Your task to perform on an android device: toggle priority inbox in the gmail app Image 0: 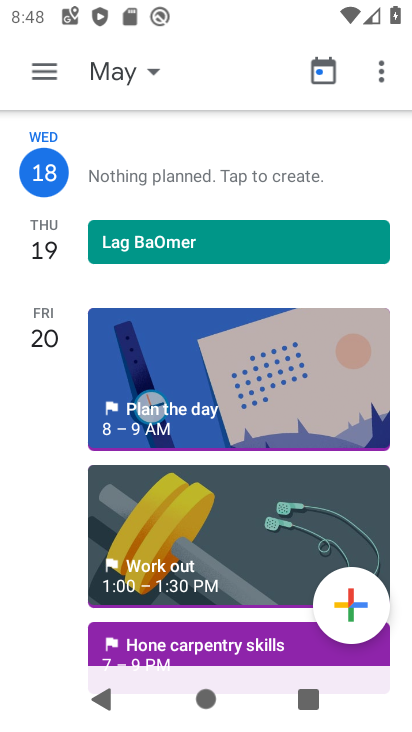
Step 0: press home button
Your task to perform on an android device: toggle priority inbox in the gmail app Image 1: 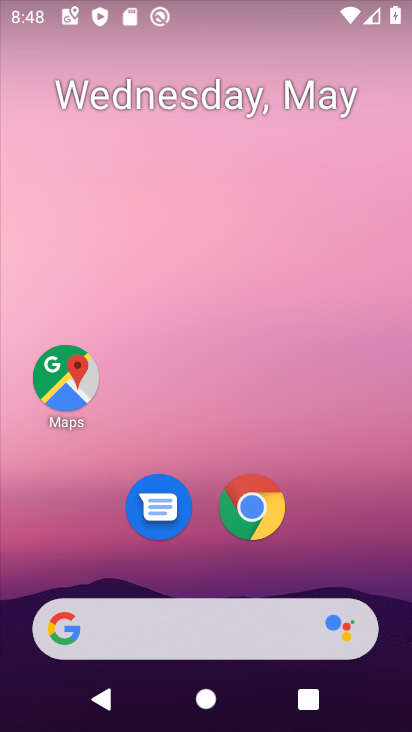
Step 1: click (263, 522)
Your task to perform on an android device: toggle priority inbox in the gmail app Image 2: 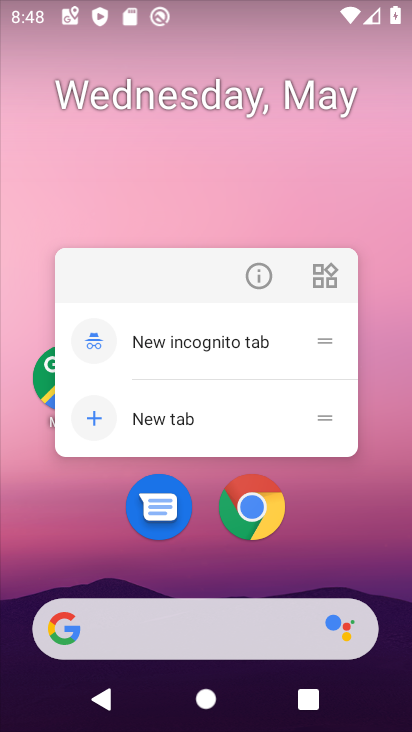
Step 2: click (263, 522)
Your task to perform on an android device: toggle priority inbox in the gmail app Image 3: 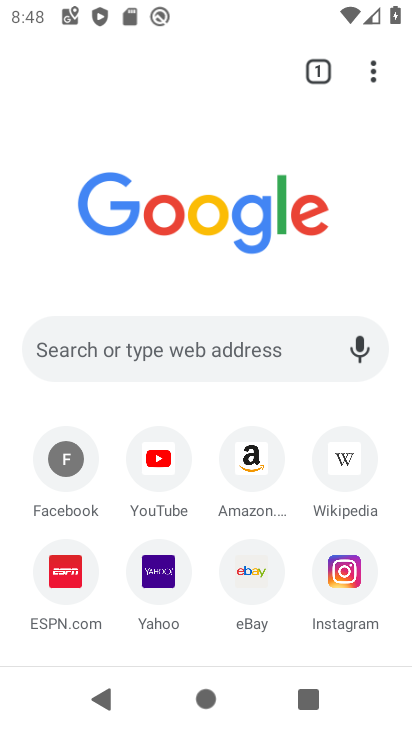
Step 3: press home button
Your task to perform on an android device: toggle priority inbox in the gmail app Image 4: 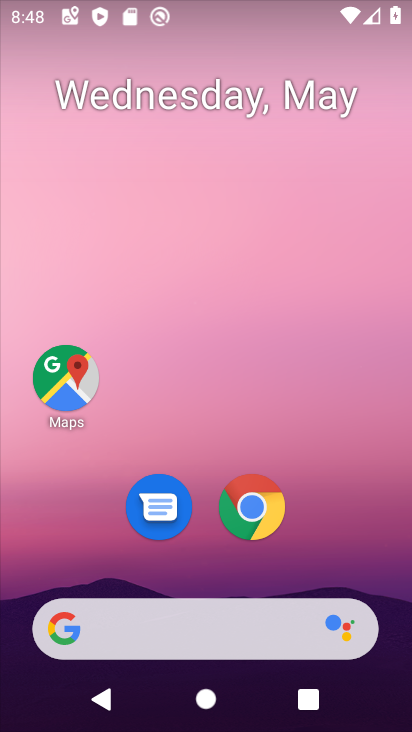
Step 4: drag from (393, 578) to (358, 118)
Your task to perform on an android device: toggle priority inbox in the gmail app Image 5: 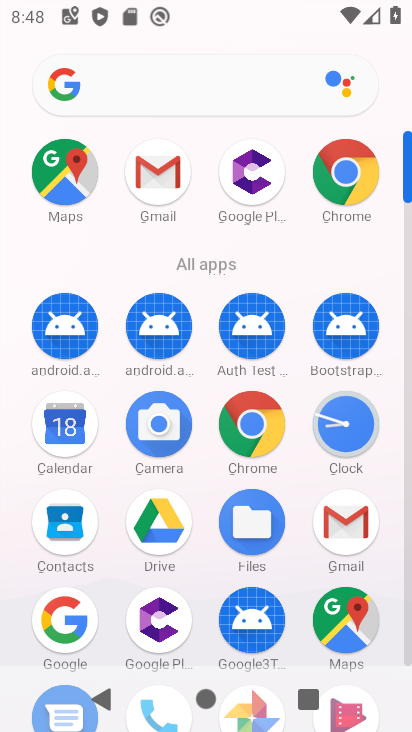
Step 5: click (145, 187)
Your task to perform on an android device: toggle priority inbox in the gmail app Image 6: 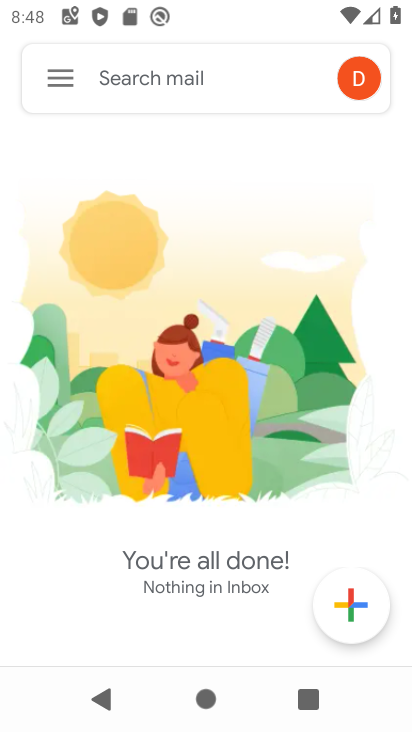
Step 6: click (55, 66)
Your task to perform on an android device: toggle priority inbox in the gmail app Image 7: 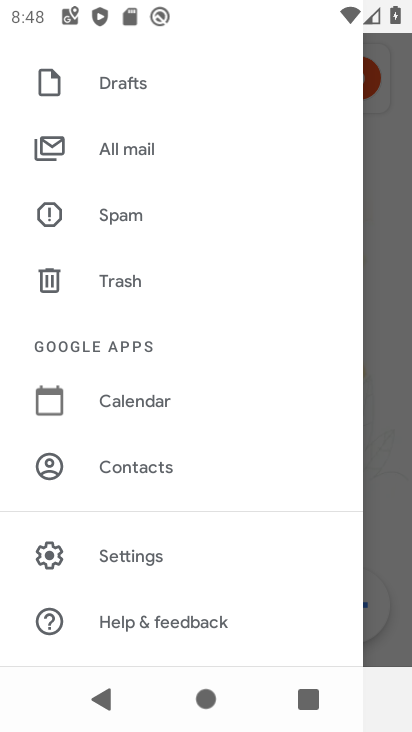
Step 7: click (156, 573)
Your task to perform on an android device: toggle priority inbox in the gmail app Image 8: 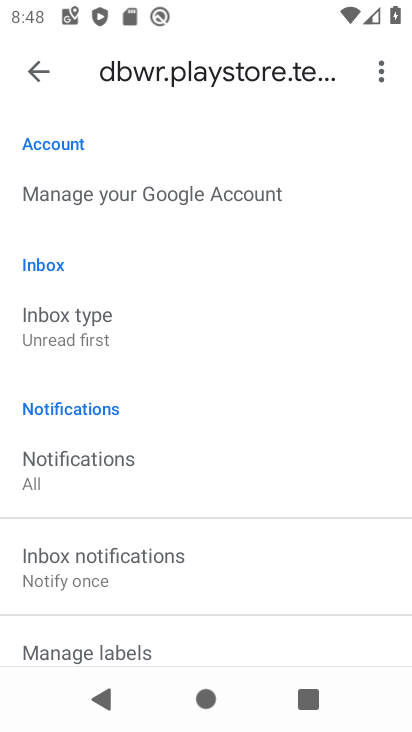
Step 8: click (177, 342)
Your task to perform on an android device: toggle priority inbox in the gmail app Image 9: 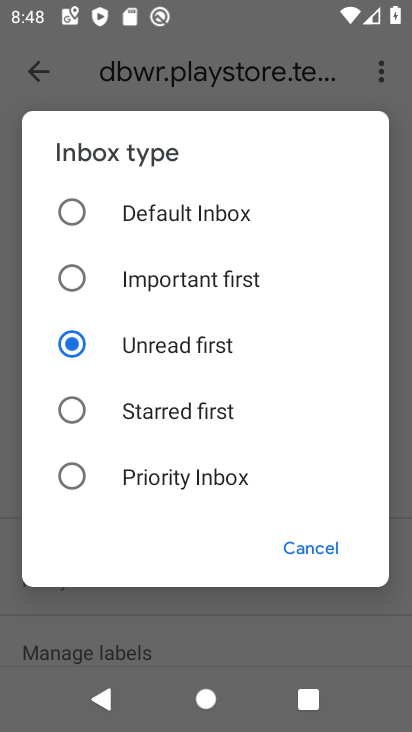
Step 9: click (193, 478)
Your task to perform on an android device: toggle priority inbox in the gmail app Image 10: 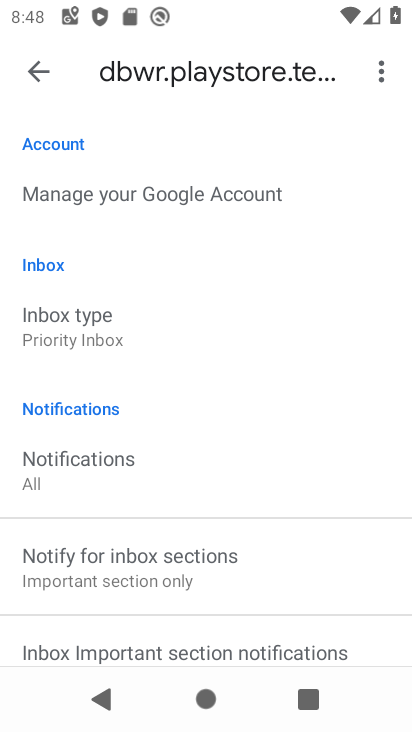
Step 10: task complete